Your task to perform on an android device: toggle location history Image 0: 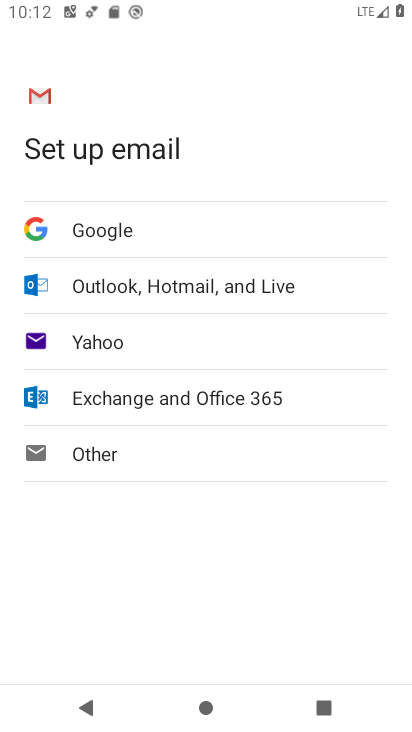
Step 0: press home button
Your task to perform on an android device: toggle location history Image 1: 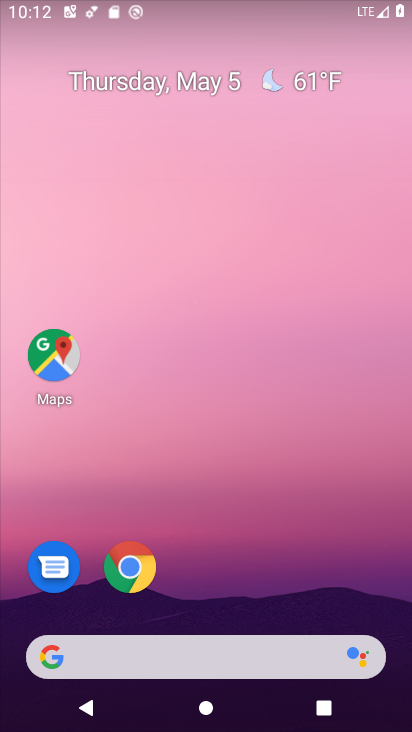
Step 1: drag from (258, 556) to (309, 88)
Your task to perform on an android device: toggle location history Image 2: 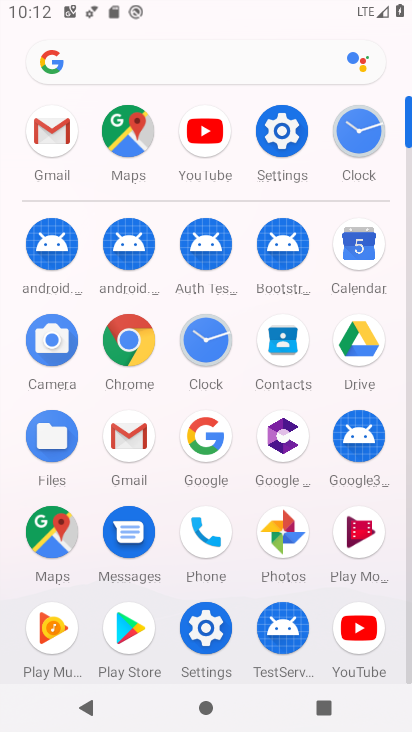
Step 2: click (286, 130)
Your task to perform on an android device: toggle location history Image 3: 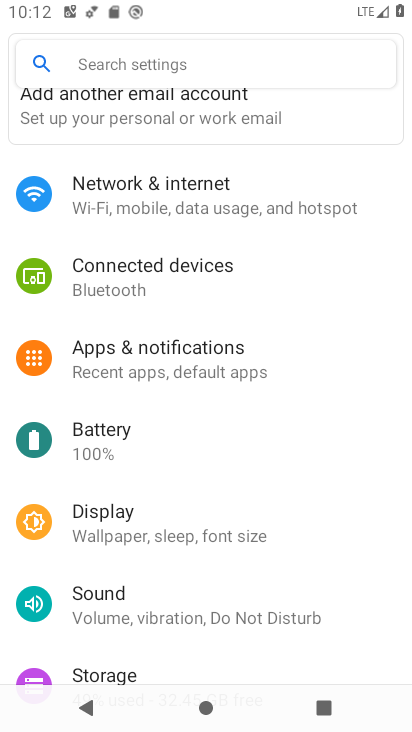
Step 3: drag from (196, 615) to (218, 378)
Your task to perform on an android device: toggle location history Image 4: 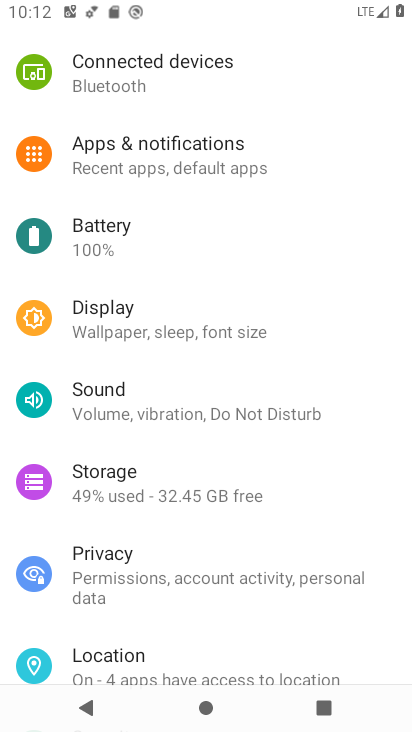
Step 4: click (159, 666)
Your task to perform on an android device: toggle location history Image 5: 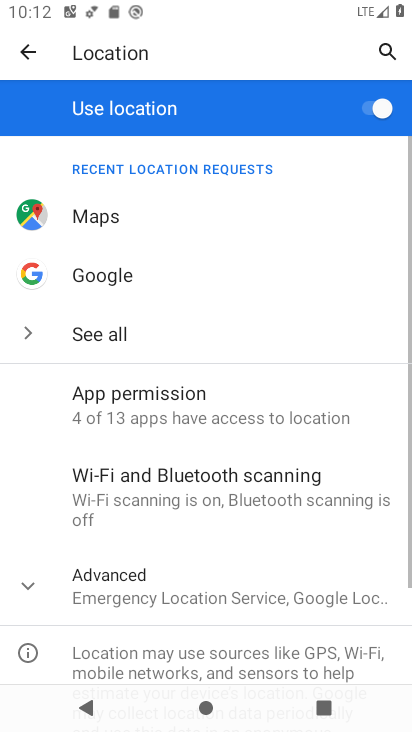
Step 5: click (209, 604)
Your task to perform on an android device: toggle location history Image 6: 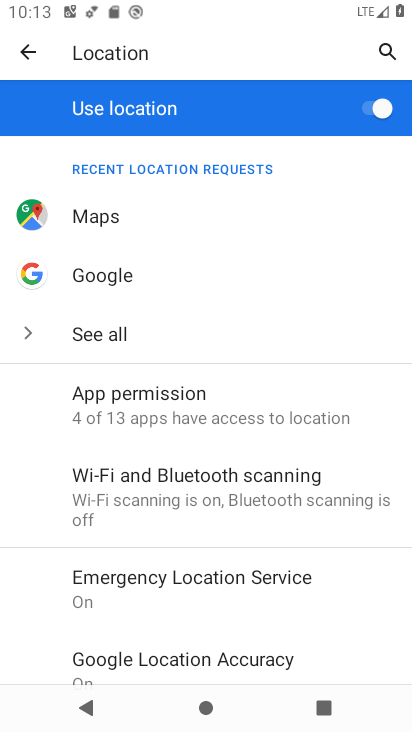
Step 6: drag from (232, 622) to (268, 333)
Your task to perform on an android device: toggle location history Image 7: 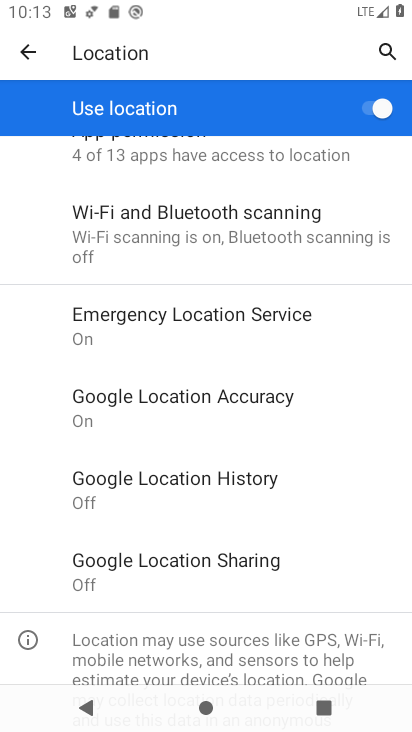
Step 7: click (247, 487)
Your task to perform on an android device: toggle location history Image 8: 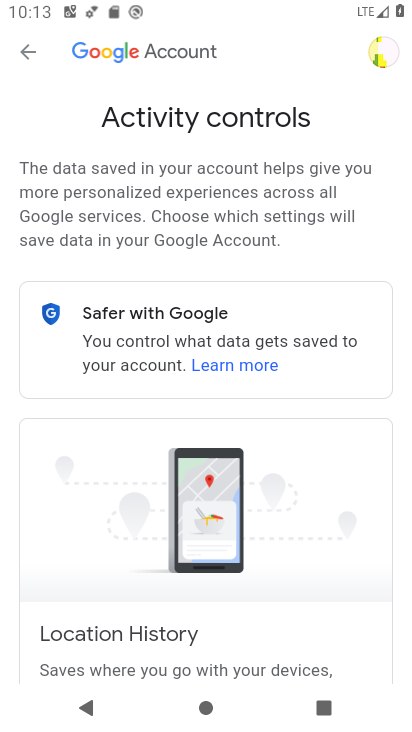
Step 8: drag from (285, 494) to (283, 126)
Your task to perform on an android device: toggle location history Image 9: 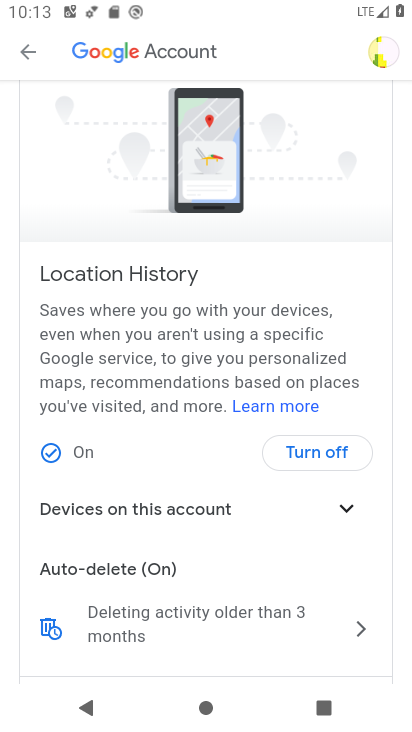
Step 9: click (336, 461)
Your task to perform on an android device: toggle location history Image 10: 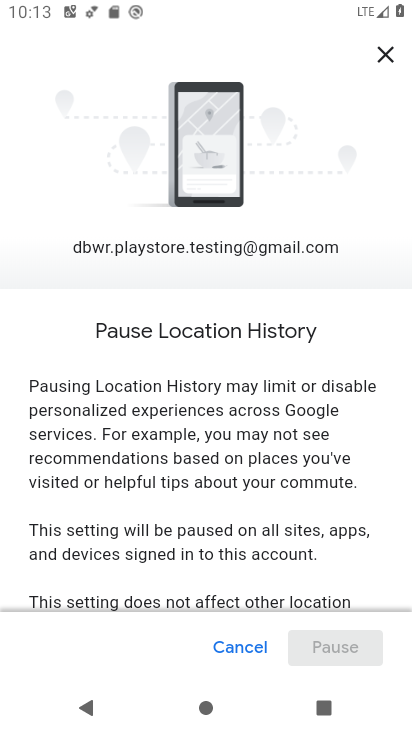
Step 10: drag from (220, 508) to (251, 185)
Your task to perform on an android device: toggle location history Image 11: 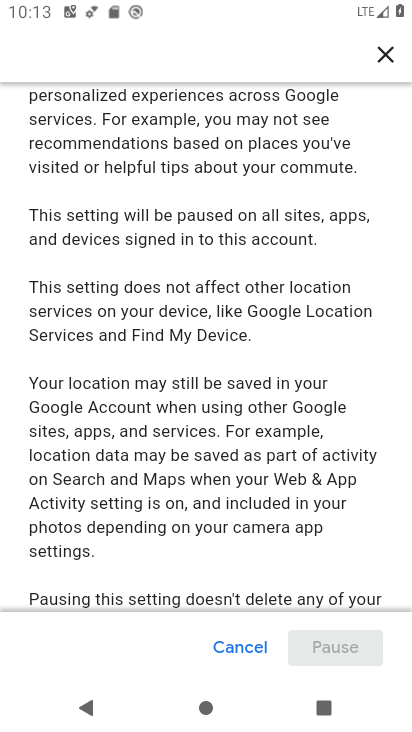
Step 11: drag from (188, 537) to (211, 241)
Your task to perform on an android device: toggle location history Image 12: 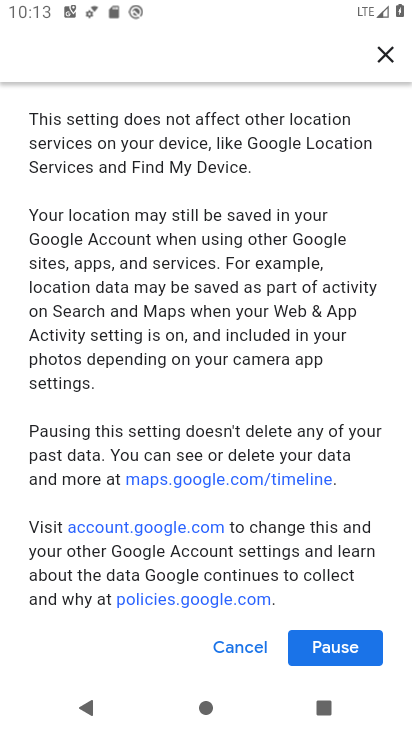
Step 12: click (340, 645)
Your task to perform on an android device: toggle location history Image 13: 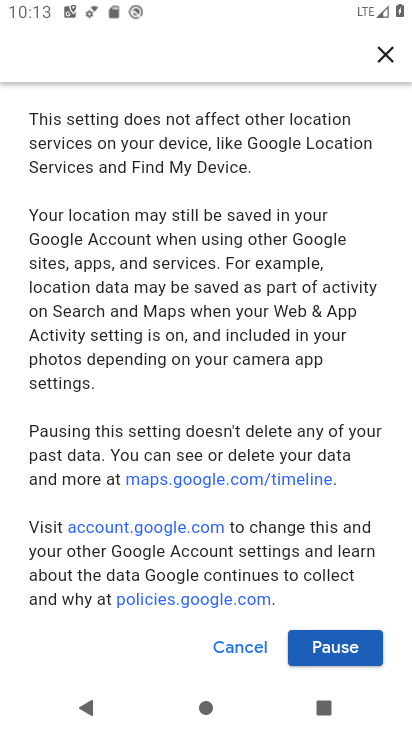
Step 13: click (340, 645)
Your task to perform on an android device: toggle location history Image 14: 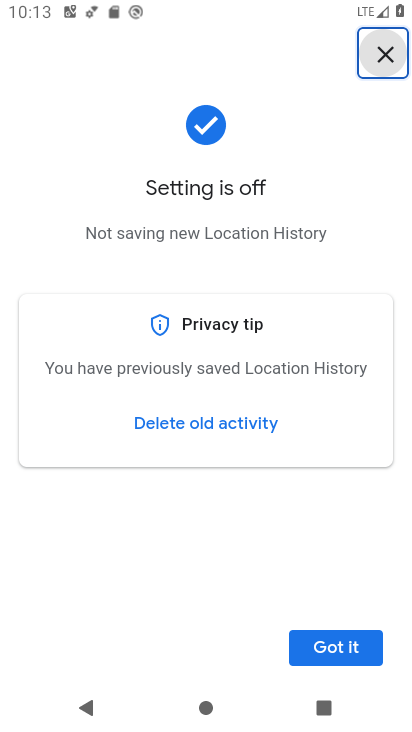
Step 14: click (330, 645)
Your task to perform on an android device: toggle location history Image 15: 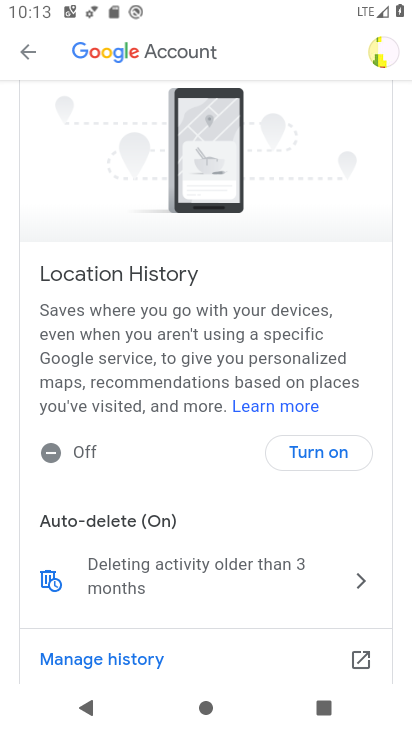
Step 15: task complete